Your task to perform on an android device: turn pop-ups off in chrome Image 0: 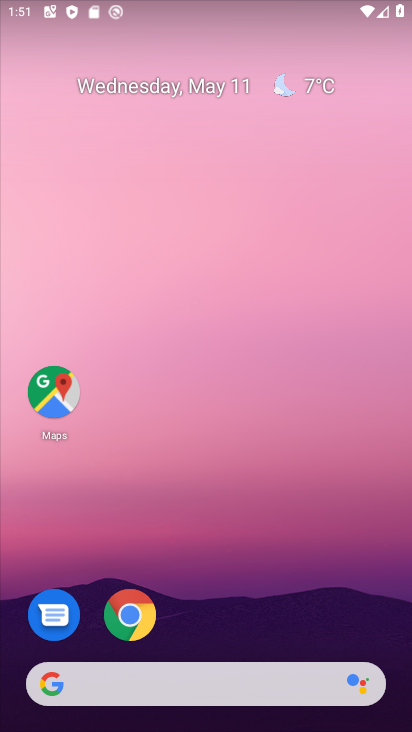
Step 0: click (130, 611)
Your task to perform on an android device: turn pop-ups off in chrome Image 1: 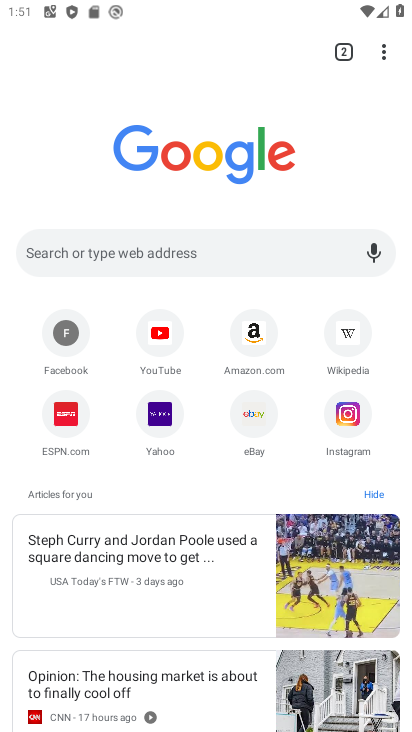
Step 1: click (380, 45)
Your task to perform on an android device: turn pop-ups off in chrome Image 2: 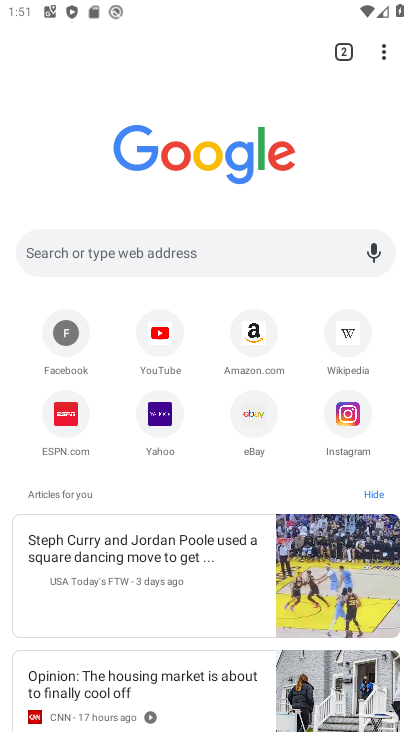
Step 2: drag from (382, 48) to (210, 434)
Your task to perform on an android device: turn pop-ups off in chrome Image 3: 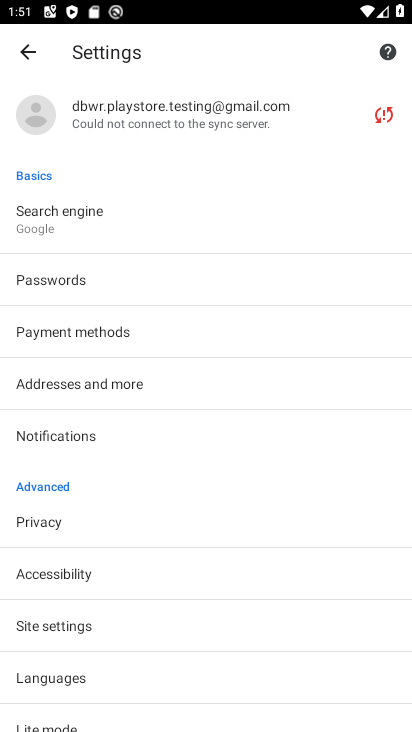
Step 3: click (105, 617)
Your task to perform on an android device: turn pop-ups off in chrome Image 4: 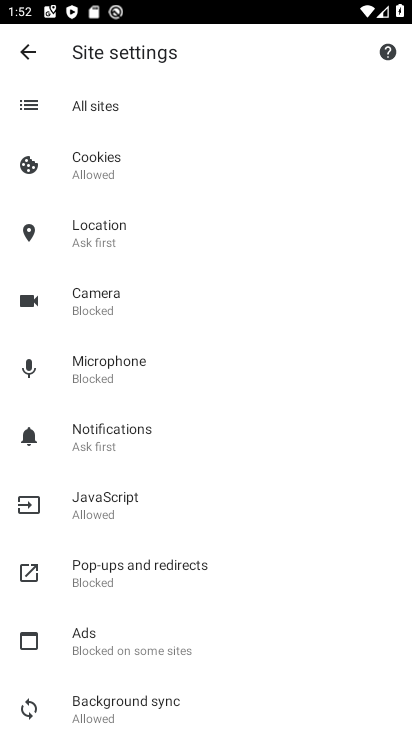
Step 4: click (119, 580)
Your task to perform on an android device: turn pop-ups off in chrome Image 5: 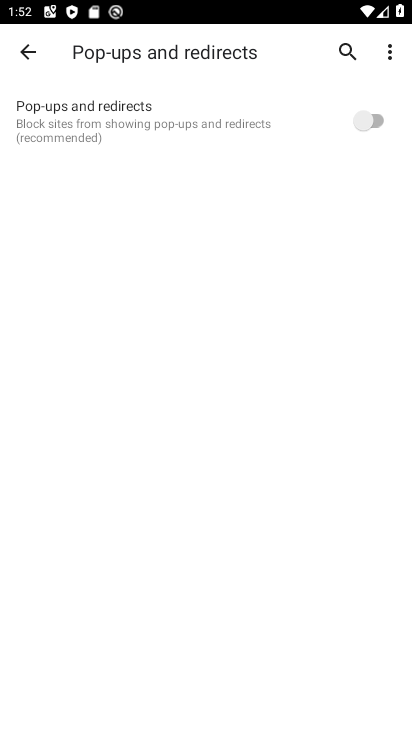
Step 5: task complete